Your task to perform on an android device: delete the emails in spam in the gmail app Image 0: 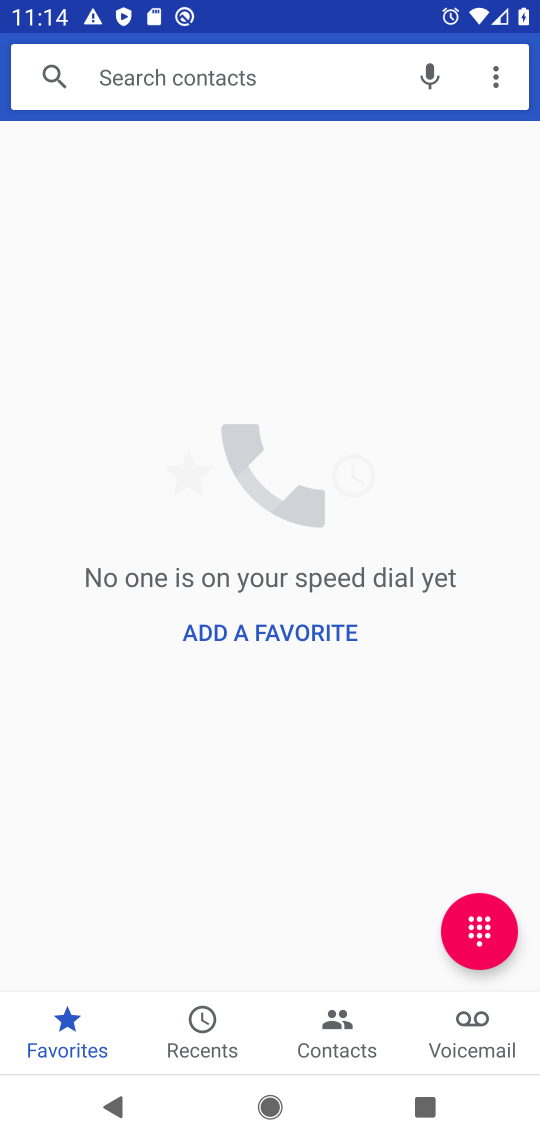
Step 0: press home button
Your task to perform on an android device: delete the emails in spam in the gmail app Image 1: 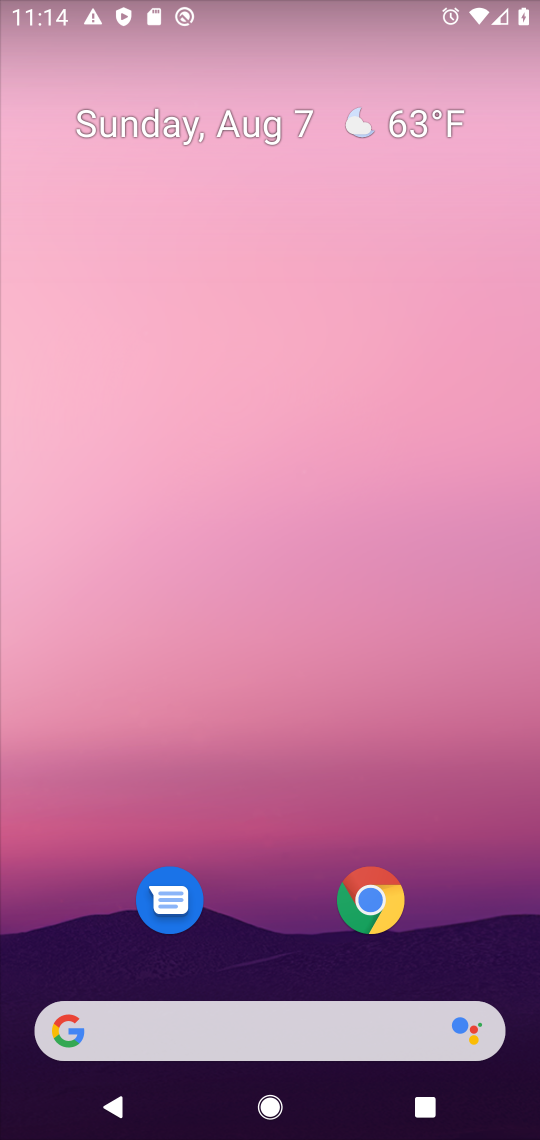
Step 1: drag from (267, 967) to (272, 127)
Your task to perform on an android device: delete the emails in spam in the gmail app Image 2: 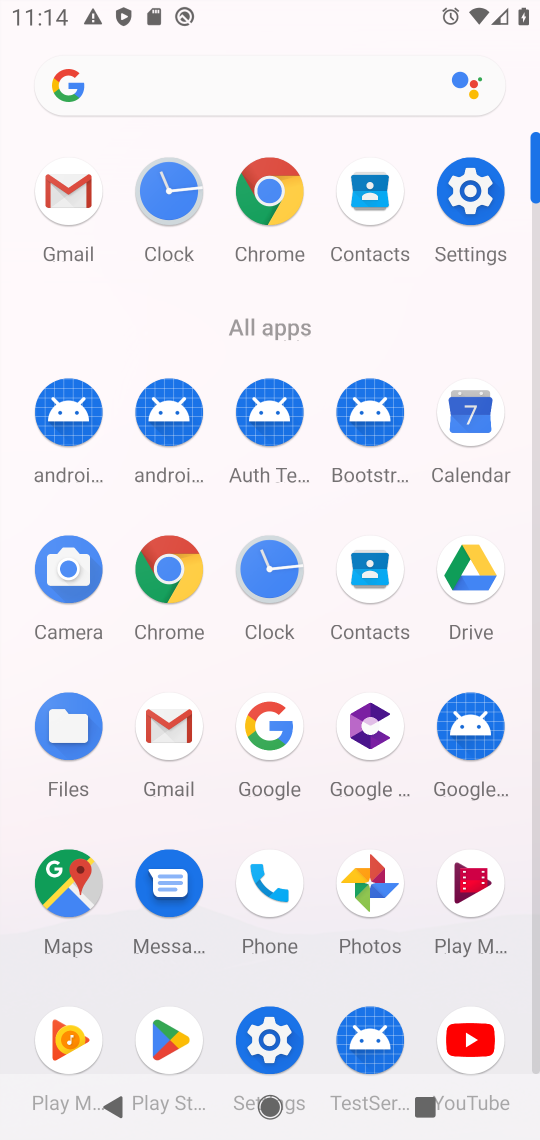
Step 2: click (166, 726)
Your task to perform on an android device: delete the emails in spam in the gmail app Image 3: 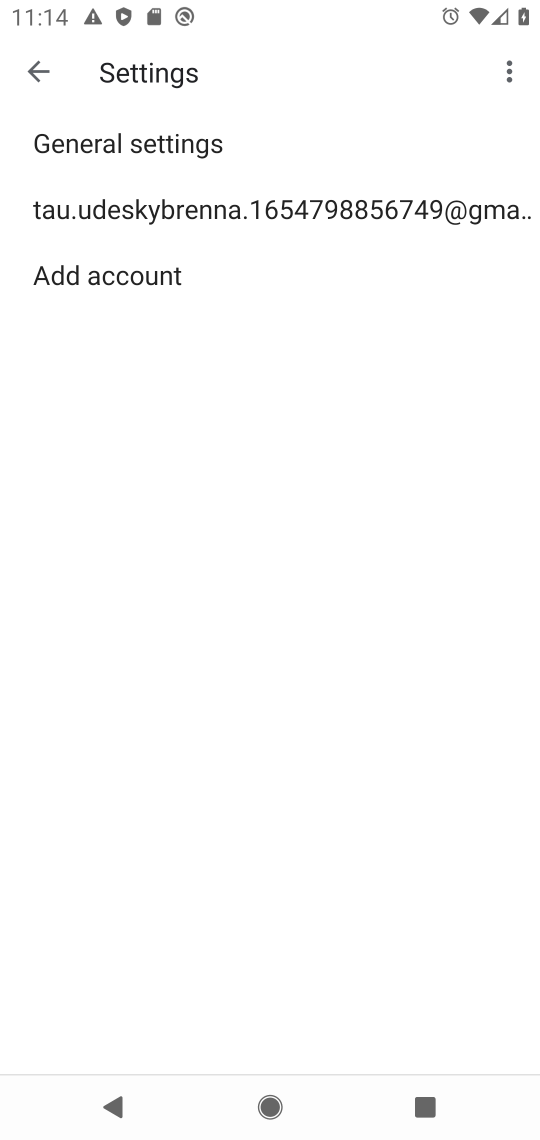
Step 3: click (43, 76)
Your task to perform on an android device: delete the emails in spam in the gmail app Image 4: 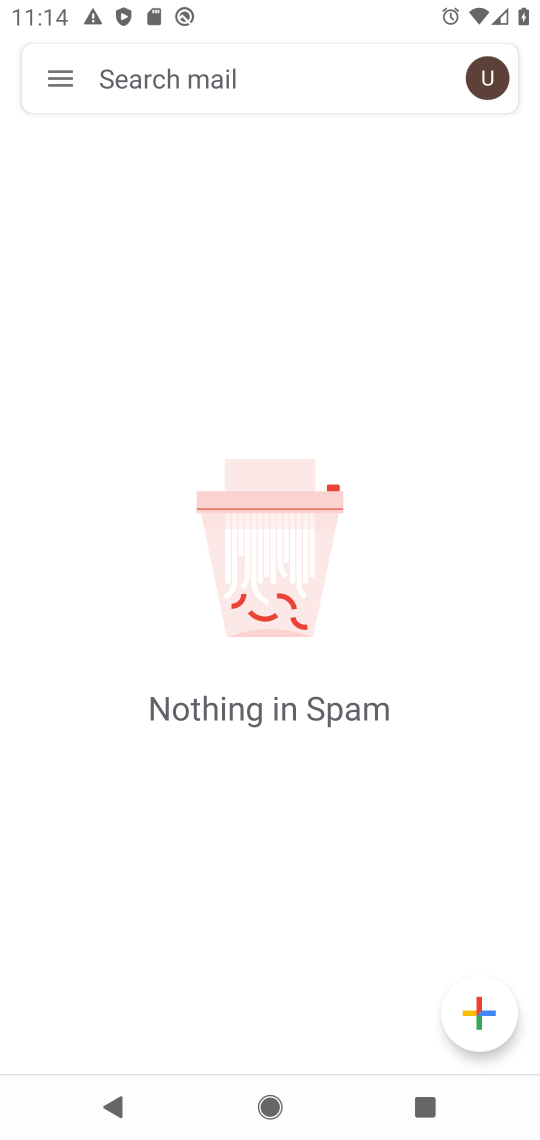
Step 4: click (67, 75)
Your task to perform on an android device: delete the emails in spam in the gmail app Image 5: 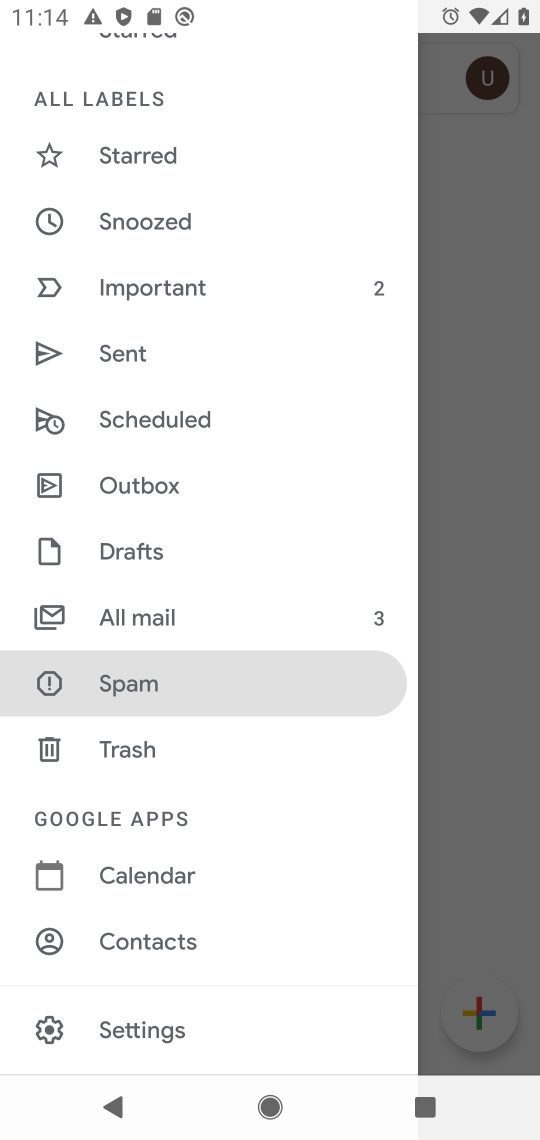
Step 5: click (171, 678)
Your task to perform on an android device: delete the emails in spam in the gmail app Image 6: 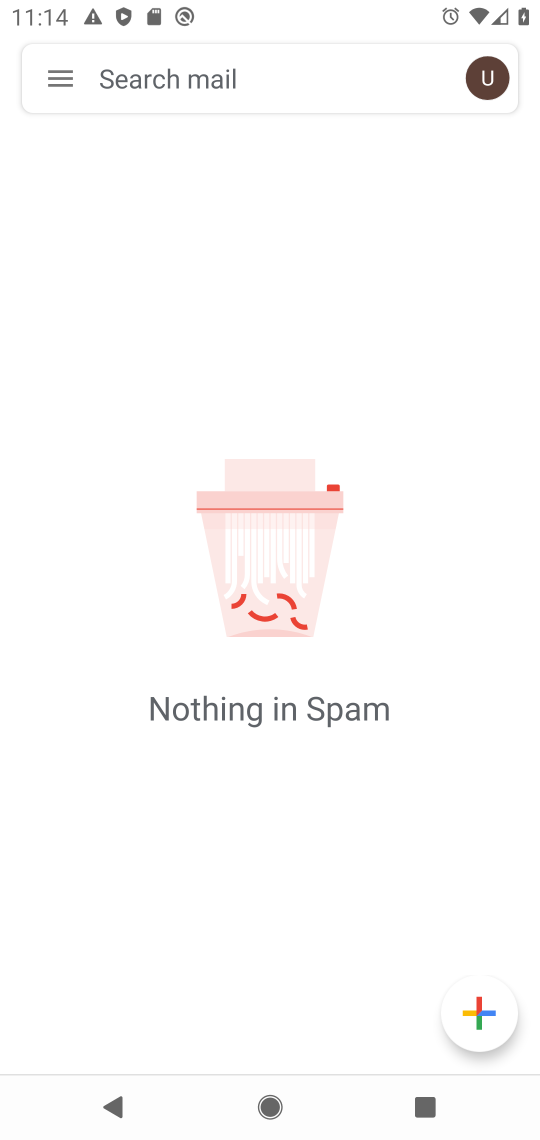
Step 6: task complete